Your task to perform on an android device: open sync settings in chrome Image 0: 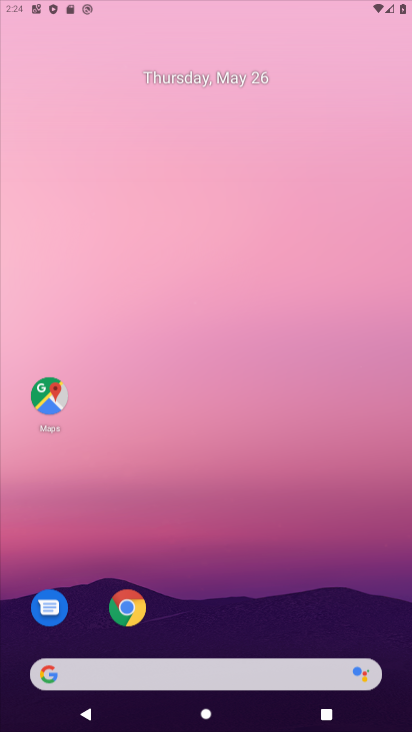
Step 0: drag from (381, 174) to (393, 120)
Your task to perform on an android device: open sync settings in chrome Image 1: 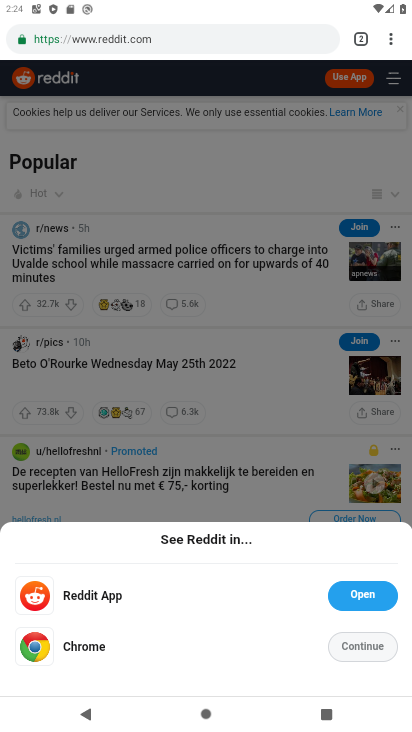
Step 1: press home button
Your task to perform on an android device: open sync settings in chrome Image 2: 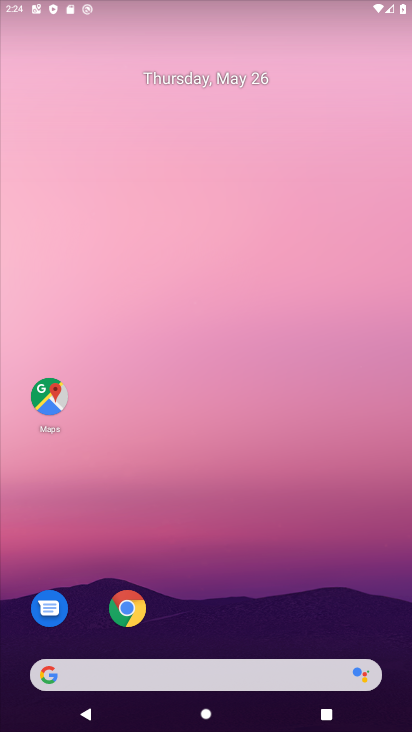
Step 2: drag from (275, 444) to (286, 81)
Your task to perform on an android device: open sync settings in chrome Image 3: 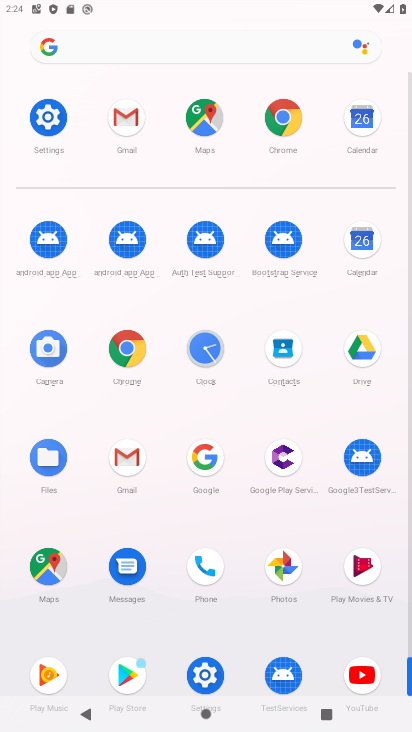
Step 3: click (264, 108)
Your task to perform on an android device: open sync settings in chrome Image 4: 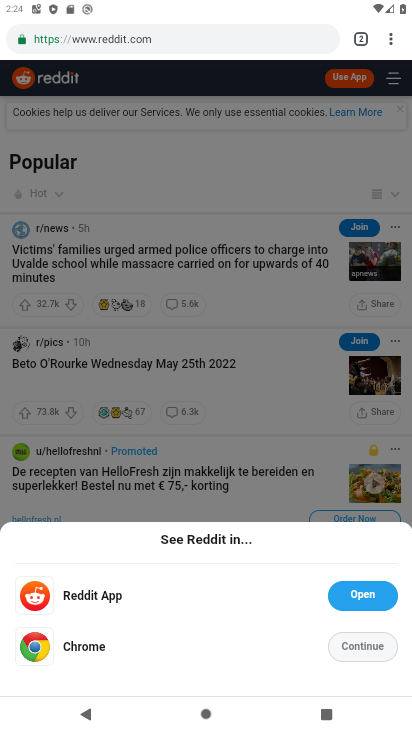
Step 4: drag from (383, 36) to (238, 468)
Your task to perform on an android device: open sync settings in chrome Image 5: 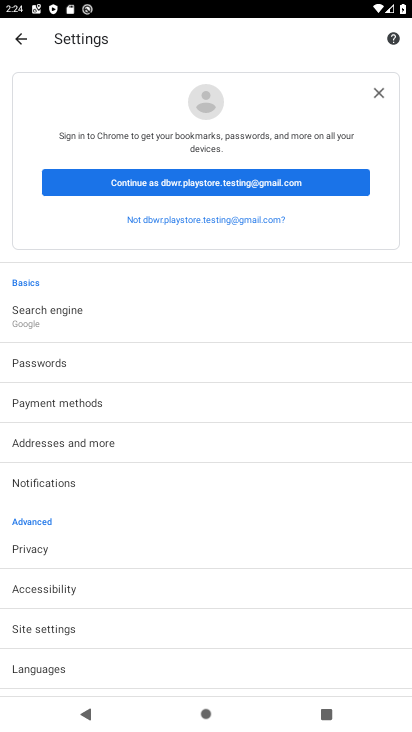
Step 5: drag from (210, 636) to (288, 173)
Your task to perform on an android device: open sync settings in chrome Image 6: 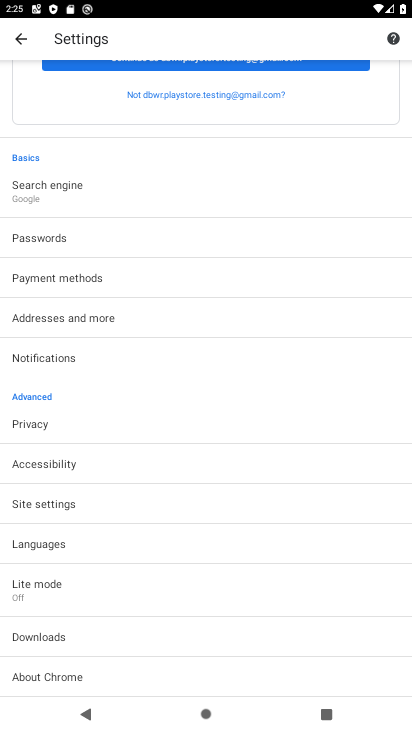
Step 6: click (107, 503)
Your task to perform on an android device: open sync settings in chrome Image 7: 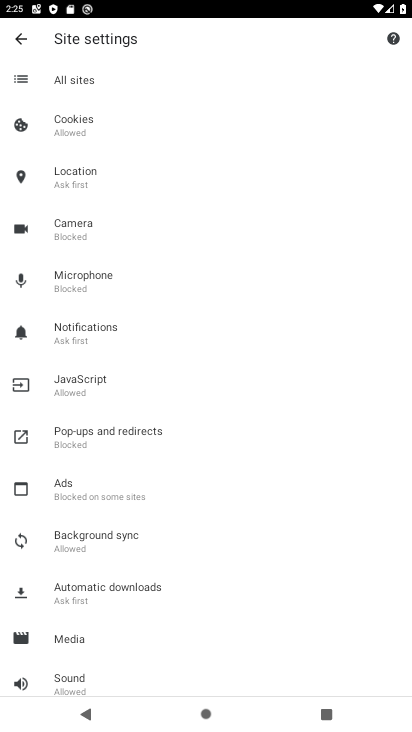
Step 7: click (80, 546)
Your task to perform on an android device: open sync settings in chrome Image 8: 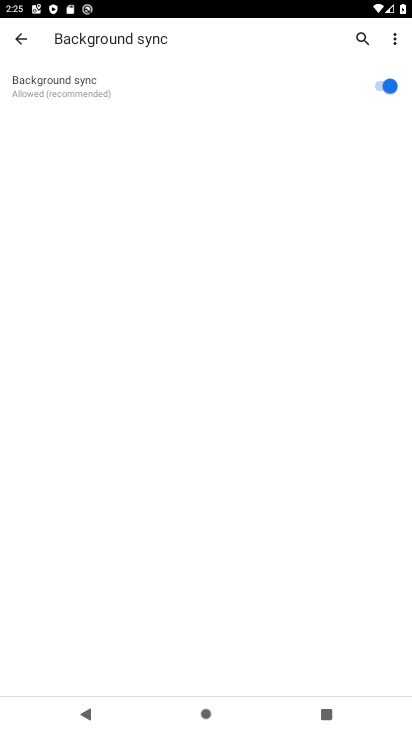
Step 8: task complete